Your task to perform on an android device: search for starred emails in the gmail app Image 0: 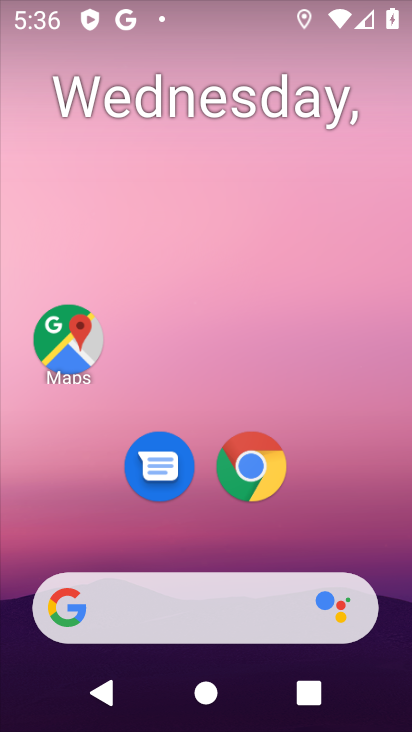
Step 0: press home button
Your task to perform on an android device: search for starred emails in the gmail app Image 1: 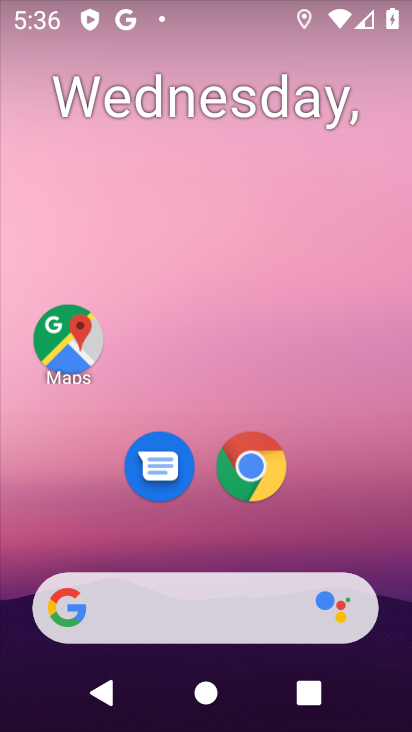
Step 1: drag from (342, 525) to (368, 79)
Your task to perform on an android device: search for starred emails in the gmail app Image 2: 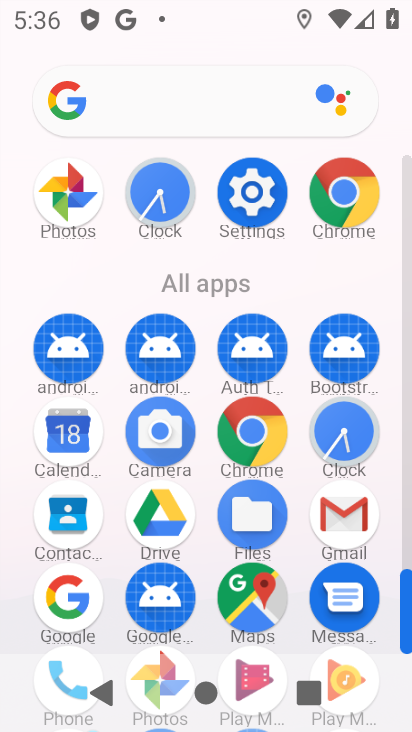
Step 2: click (342, 508)
Your task to perform on an android device: search for starred emails in the gmail app Image 3: 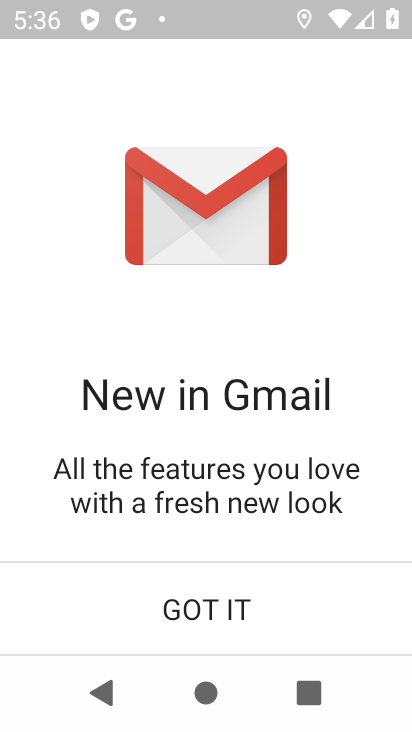
Step 3: click (211, 609)
Your task to perform on an android device: search for starred emails in the gmail app Image 4: 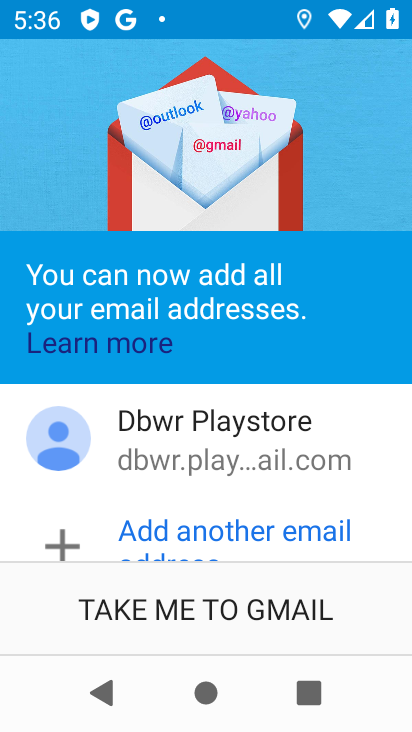
Step 4: click (276, 608)
Your task to perform on an android device: search for starred emails in the gmail app Image 5: 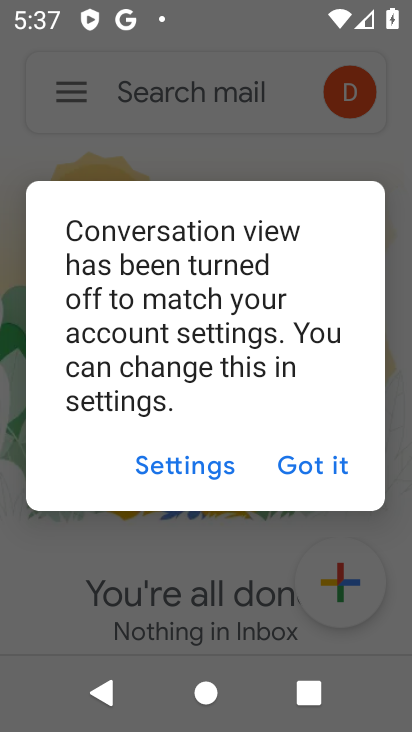
Step 5: click (313, 469)
Your task to perform on an android device: search for starred emails in the gmail app Image 6: 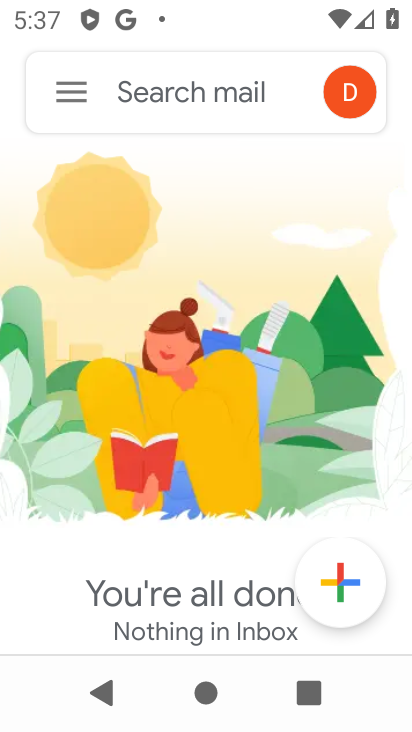
Step 6: click (63, 91)
Your task to perform on an android device: search for starred emails in the gmail app Image 7: 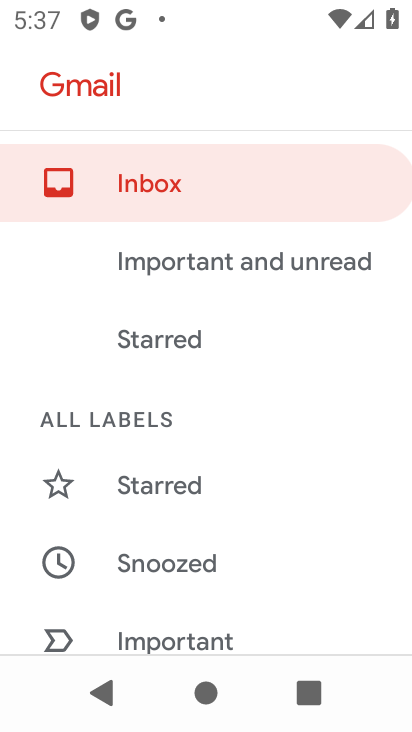
Step 7: click (169, 477)
Your task to perform on an android device: search for starred emails in the gmail app Image 8: 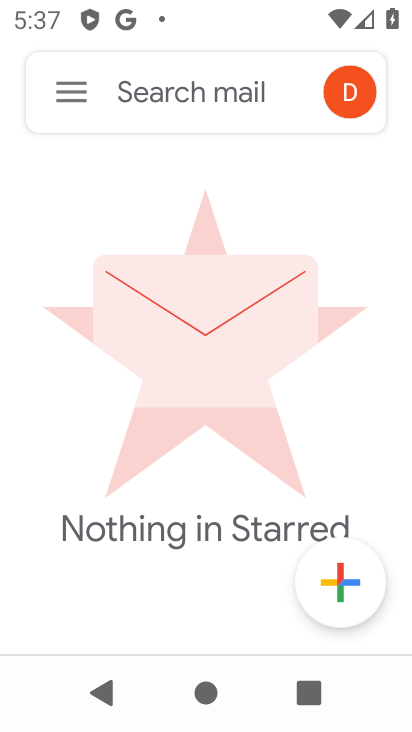
Step 8: task complete